Your task to perform on an android device: Open network settings Image 0: 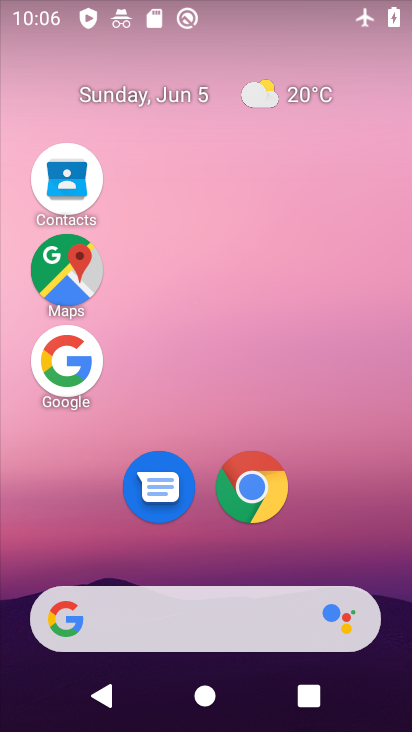
Step 0: drag from (231, 475) to (197, 0)
Your task to perform on an android device: Open network settings Image 1: 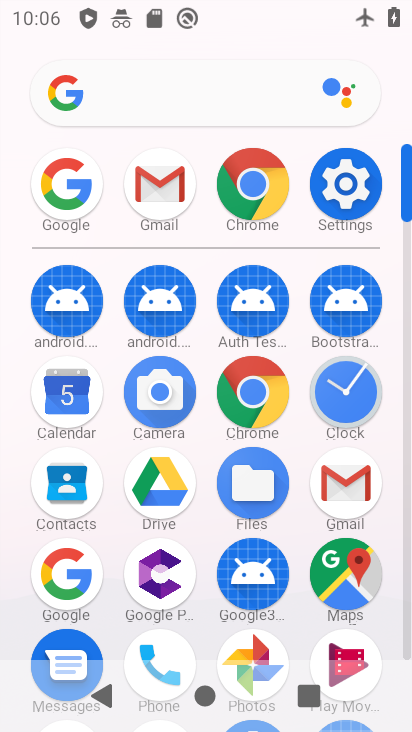
Step 1: click (344, 187)
Your task to perform on an android device: Open network settings Image 2: 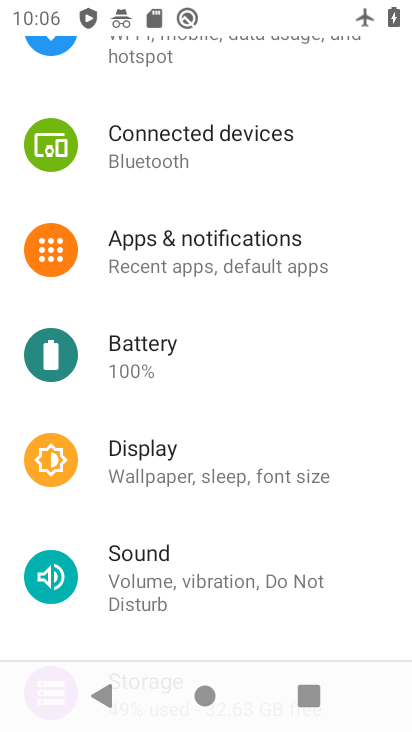
Step 2: drag from (218, 299) to (147, 645)
Your task to perform on an android device: Open network settings Image 3: 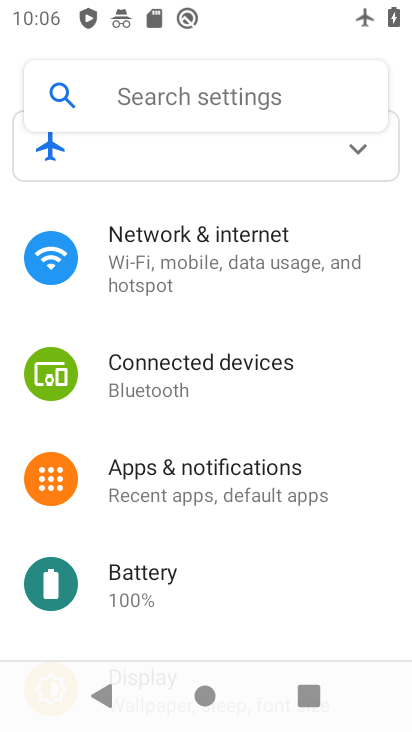
Step 3: click (190, 297)
Your task to perform on an android device: Open network settings Image 4: 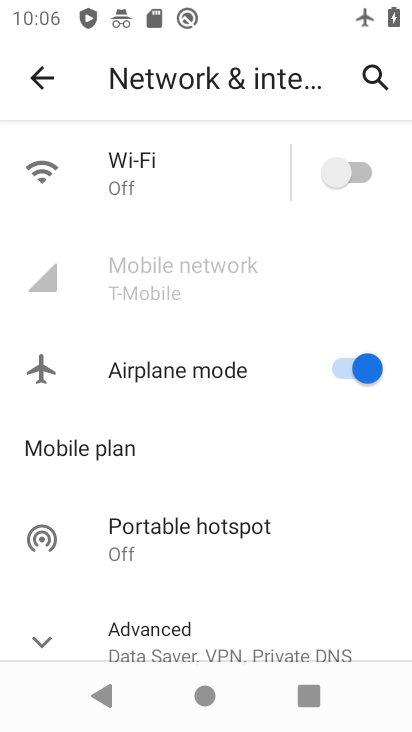
Step 4: click (215, 289)
Your task to perform on an android device: Open network settings Image 5: 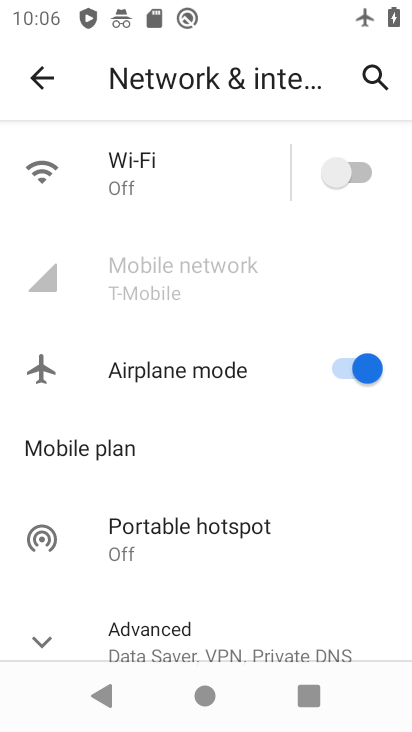
Step 5: task complete